Your task to perform on an android device: change the clock display to show seconds Image 0: 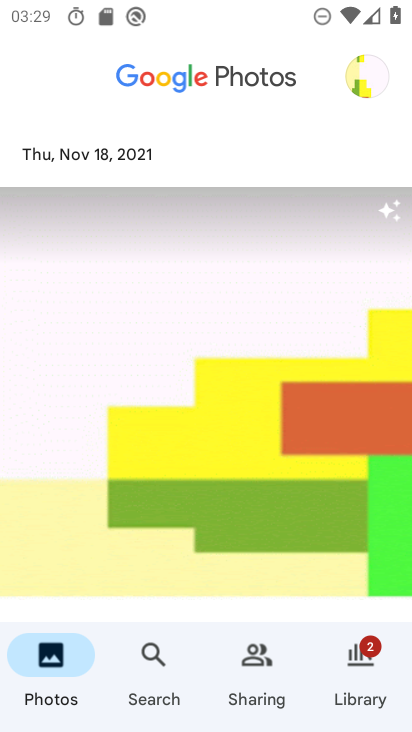
Step 0: press home button
Your task to perform on an android device: change the clock display to show seconds Image 1: 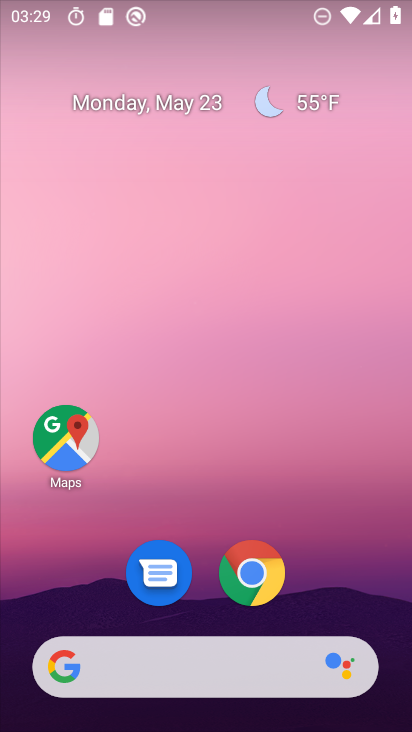
Step 1: drag from (370, 542) to (266, 51)
Your task to perform on an android device: change the clock display to show seconds Image 2: 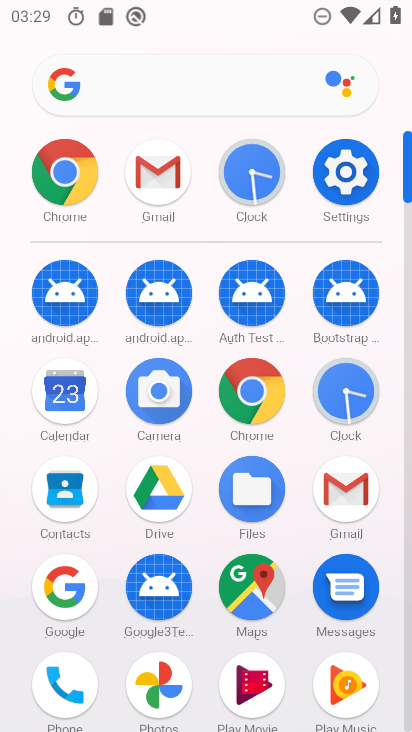
Step 2: click (260, 172)
Your task to perform on an android device: change the clock display to show seconds Image 3: 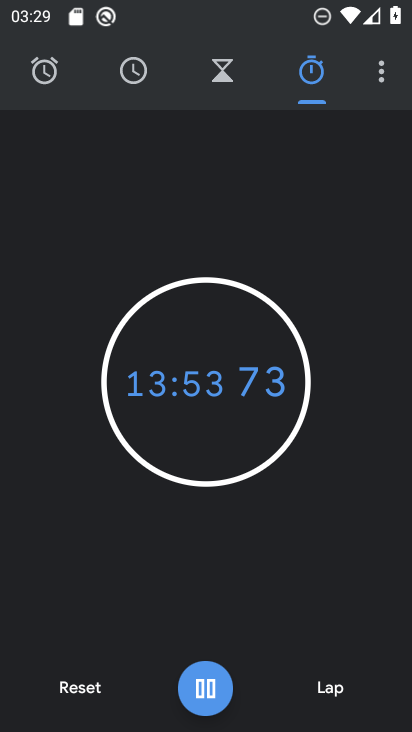
Step 3: click (385, 74)
Your task to perform on an android device: change the clock display to show seconds Image 4: 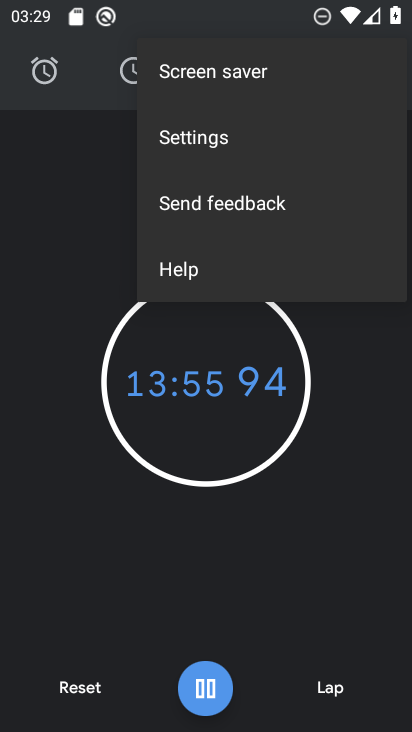
Step 4: click (212, 146)
Your task to perform on an android device: change the clock display to show seconds Image 5: 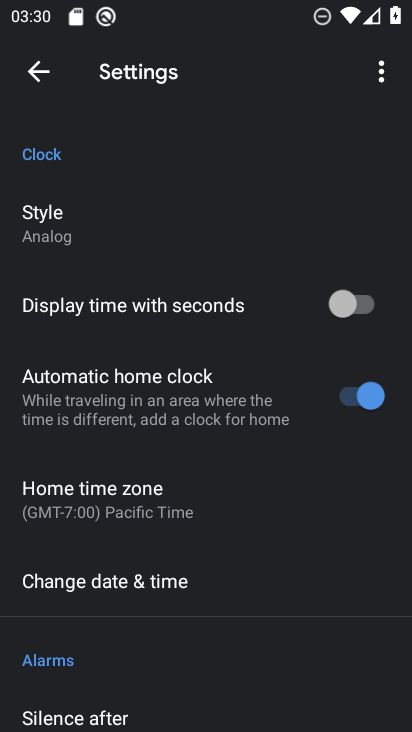
Step 5: click (371, 307)
Your task to perform on an android device: change the clock display to show seconds Image 6: 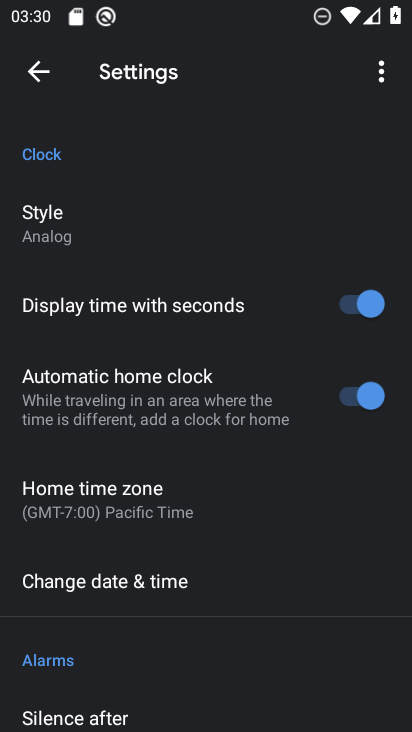
Step 6: task complete